Your task to perform on an android device: Open internet settings Image 0: 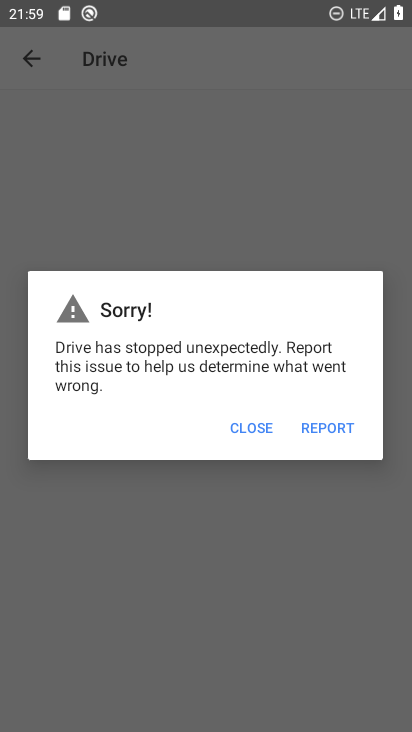
Step 0: press back button
Your task to perform on an android device: Open internet settings Image 1: 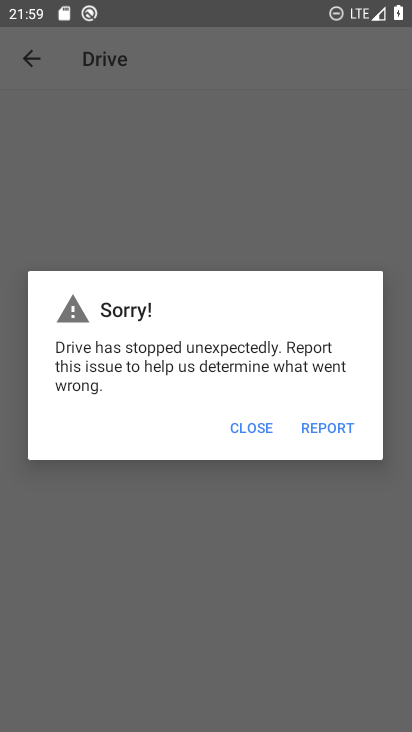
Step 1: press home button
Your task to perform on an android device: Open internet settings Image 2: 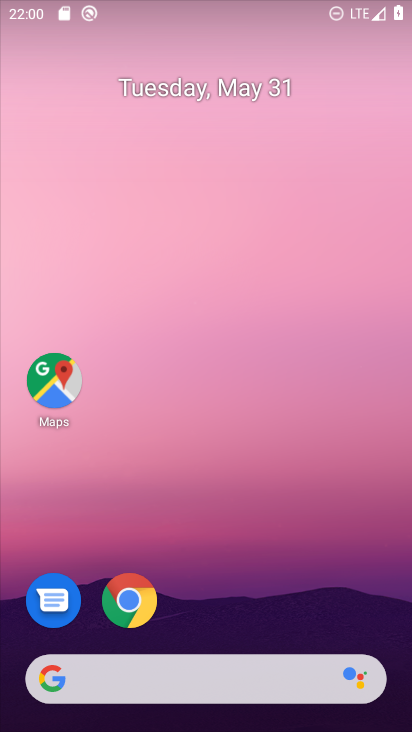
Step 2: drag from (271, 595) to (273, 54)
Your task to perform on an android device: Open internet settings Image 3: 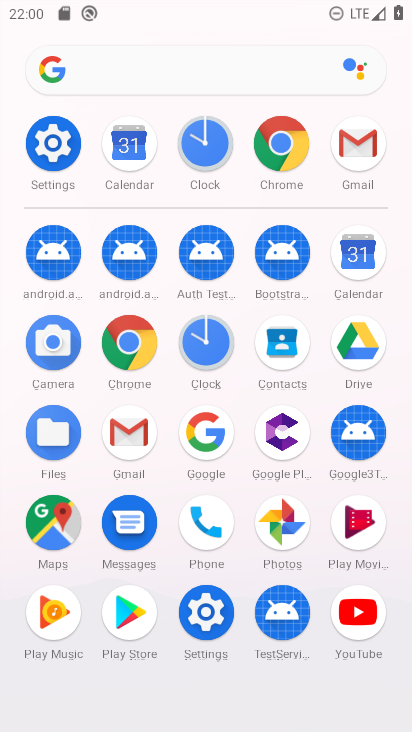
Step 3: click (55, 143)
Your task to perform on an android device: Open internet settings Image 4: 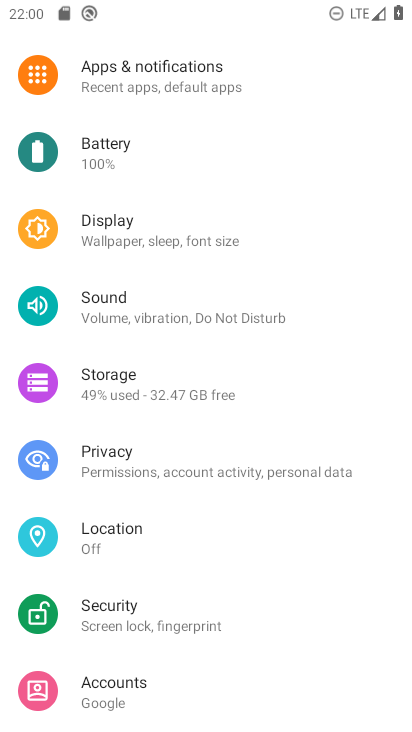
Step 4: drag from (243, 151) to (232, 694)
Your task to perform on an android device: Open internet settings Image 5: 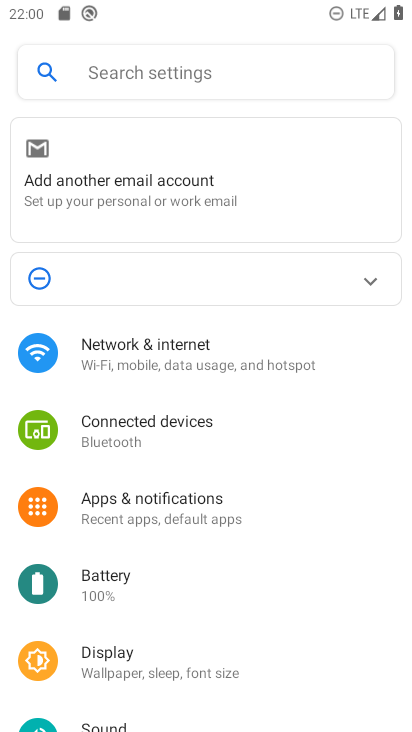
Step 5: click (160, 352)
Your task to perform on an android device: Open internet settings Image 6: 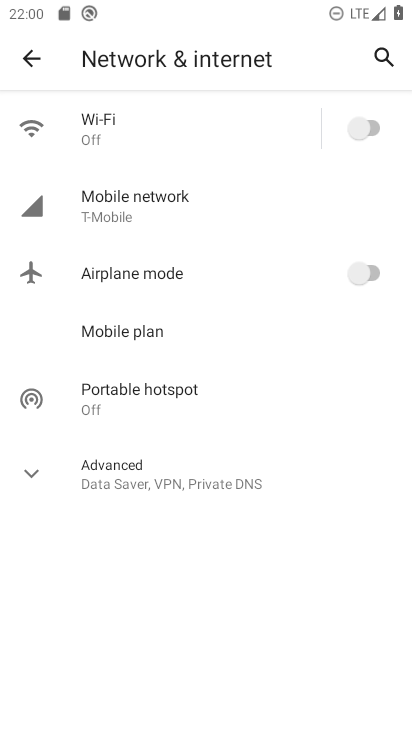
Step 6: task complete